Your task to perform on an android device: allow notifications from all sites in the chrome app Image 0: 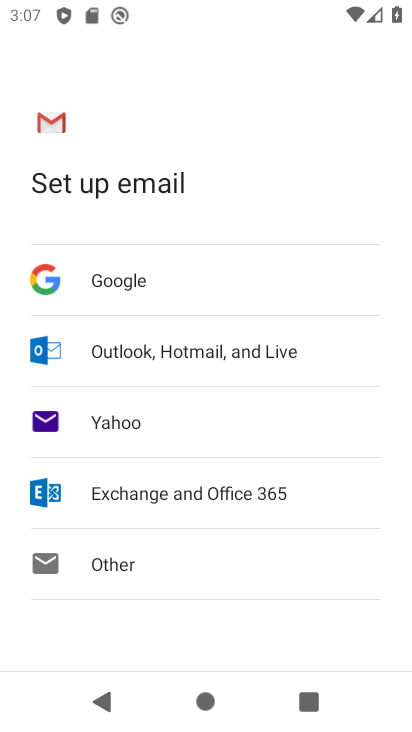
Step 0: press home button
Your task to perform on an android device: allow notifications from all sites in the chrome app Image 1: 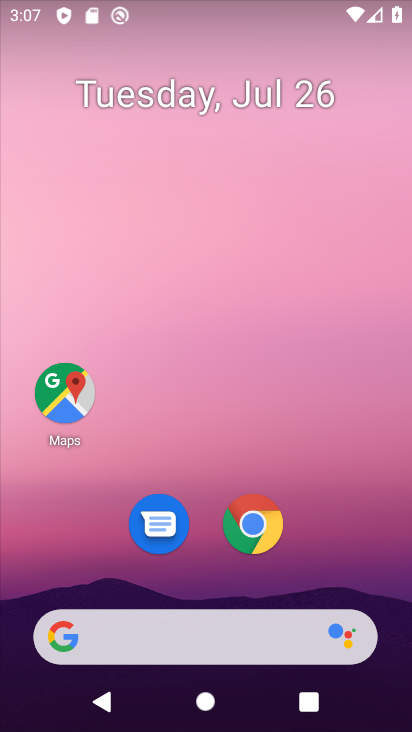
Step 1: click (251, 532)
Your task to perform on an android device: allow notifications from all sites in the chrome app Image 2: 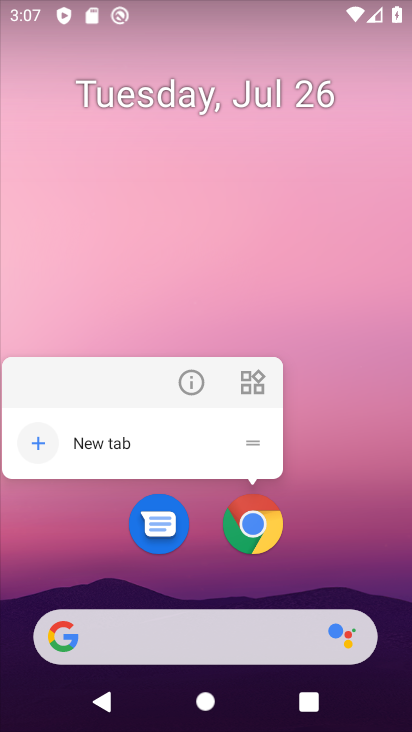
Step 2: click (253, 533)
Your task to perform on an android device: allow notifications from all sites in the chrome app Image 3: 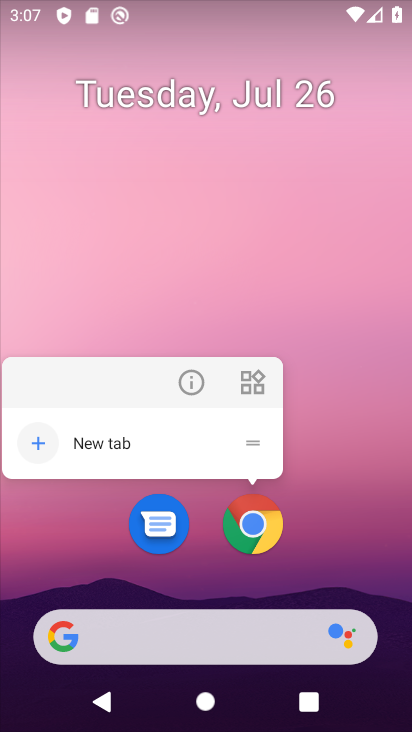
Step 3: click (253, 530)
Your task to perform on an android device: allow notifications from all sites in the chrome app Image 4: 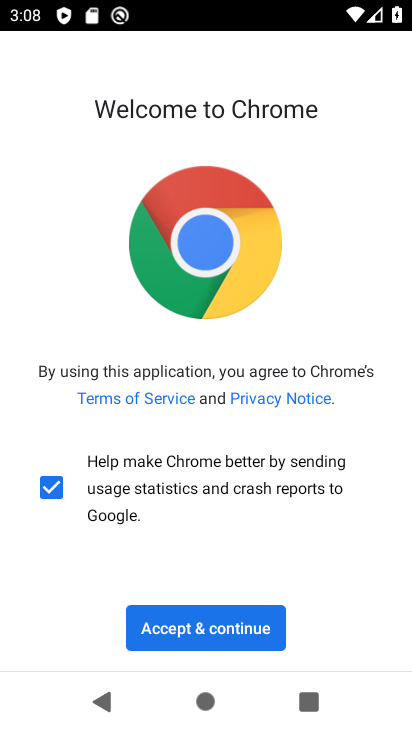
Step 4: click (236, 625)
Your task to perform on an android device: allow notifications from all sites in the chrome app Image 5: 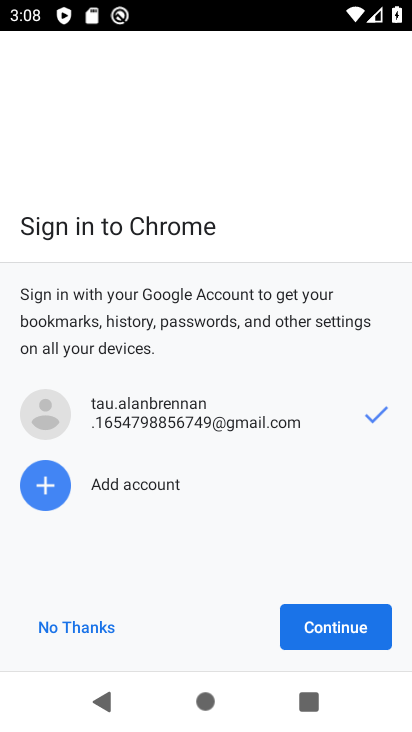
Step 5: click (307, 620)
Your task to perform on an android device: allow notifications from all sites in the chrome app Image 6: 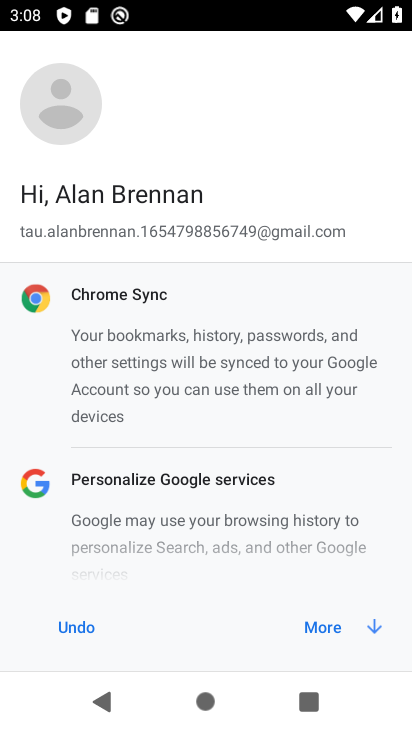
Step 6: click (317, 625)
Your task to perform on an android device: allow notifications from all sites in the chrome app Image 7: 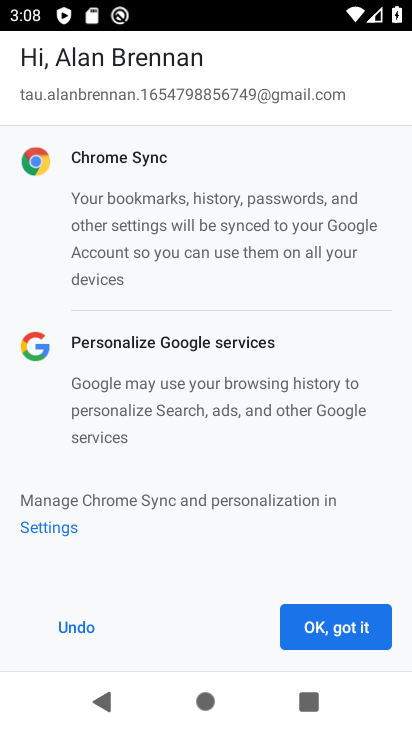
Step 7: click (317, 625)
Your task to perform on an android device: allow notifications from all sites in the chrome app Image 8: 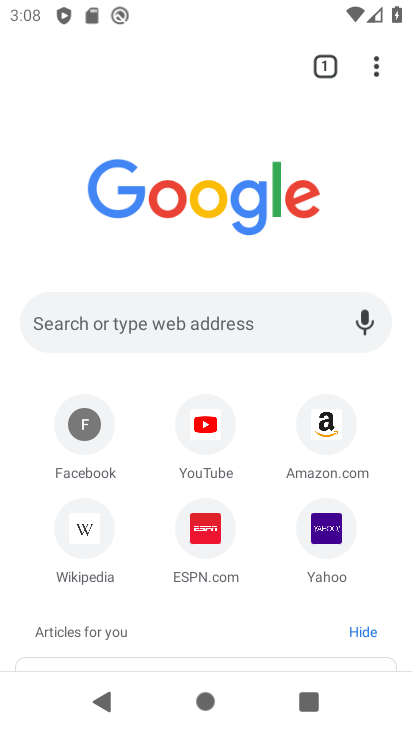
Step 8: click (373, 69)
Your task to perform on an android device: allow notifications from all sites in the chrome app Image 9: 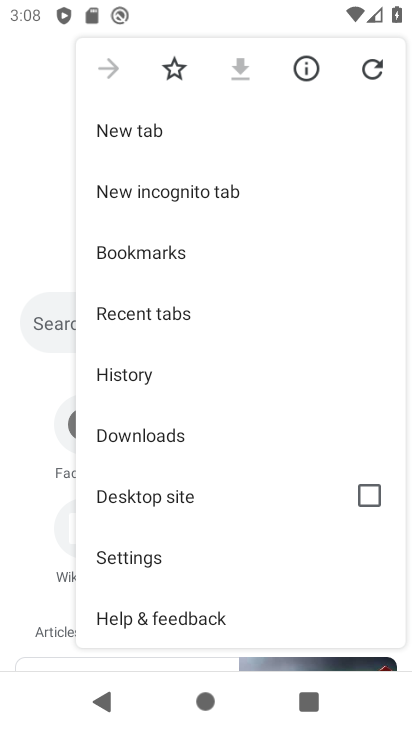
Step 9: click (153, 554)
Your task to perform on an android device: allow notifications from all sites in the chrome app Image 10: 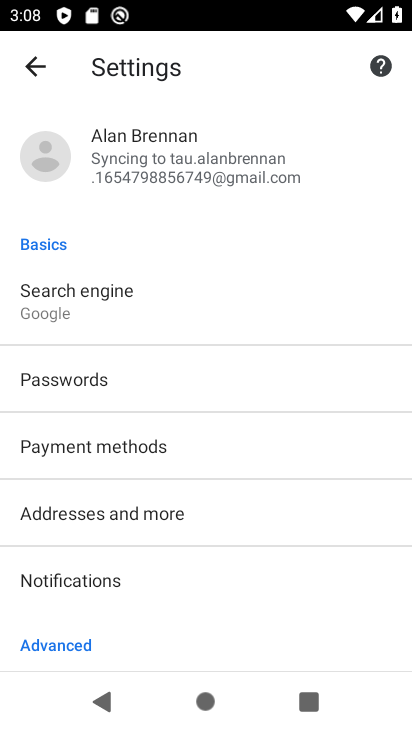
Step 10: click (170, 568)
Your task to perform on an android device: allow notifications from all sites in the chrome app Image 11: 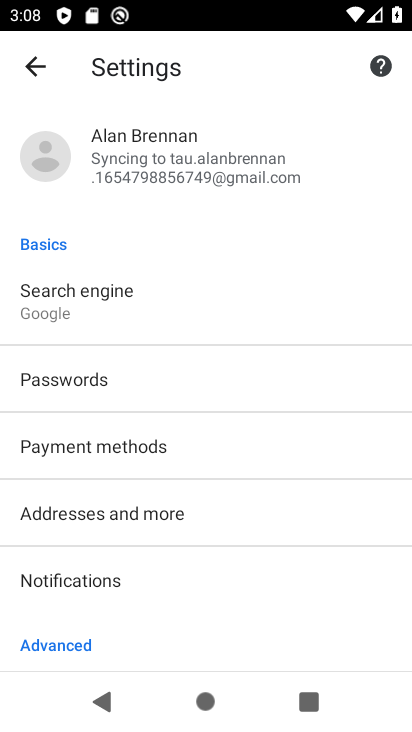
Step 11: click (102, 582)
Your task to perform on an android device: allow notifications from all sites in the chrome app Image 12: 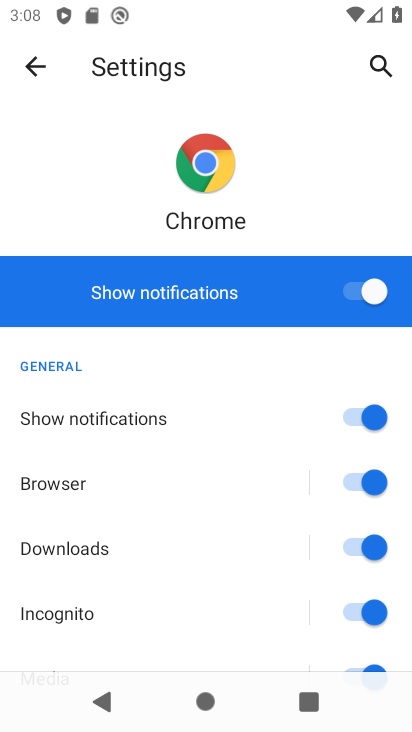
Step 12: task complete